Your task to perform on an android device: Open the phone app and click the voicemail tab. Image 0: 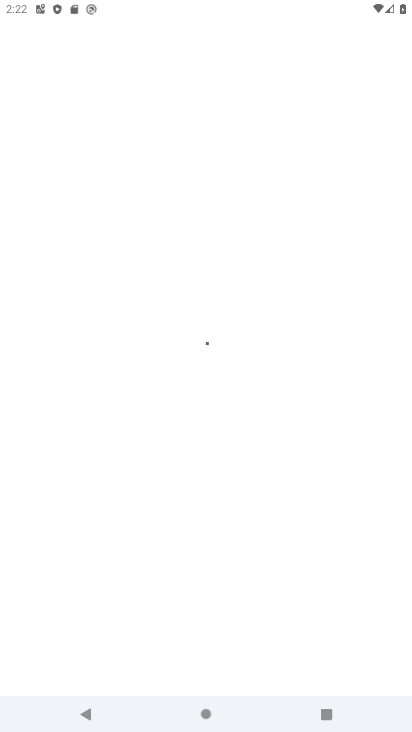
Step 0: press home button
Your task to perform on an android device: Open the phone app and click the voicemail tab. Image 1: 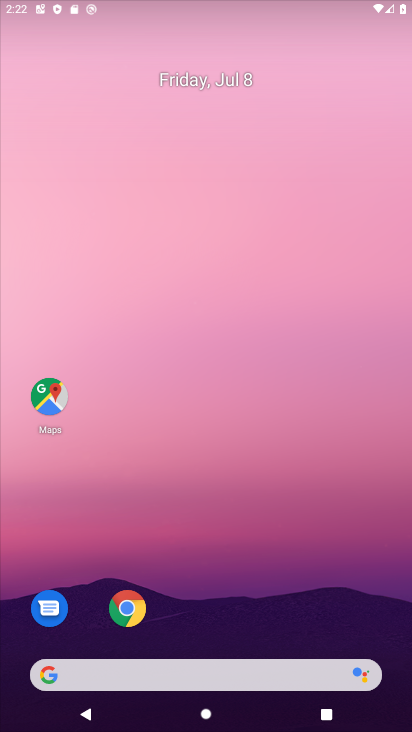
Step 1: drag from (232, 681) to (277, 125)
Your task to perform on an android device: Open the phone app and click the voicemail tab. Image 2: 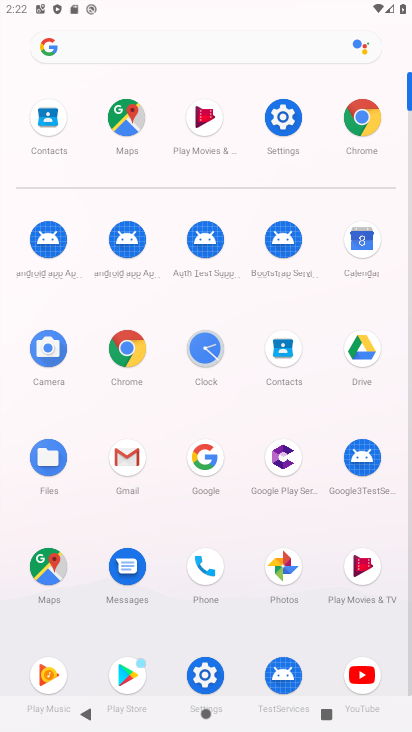
Step 2: click (214, 569)
Your task to perform on an android device: Open the phone app and click the voicemail tab. Image 3: 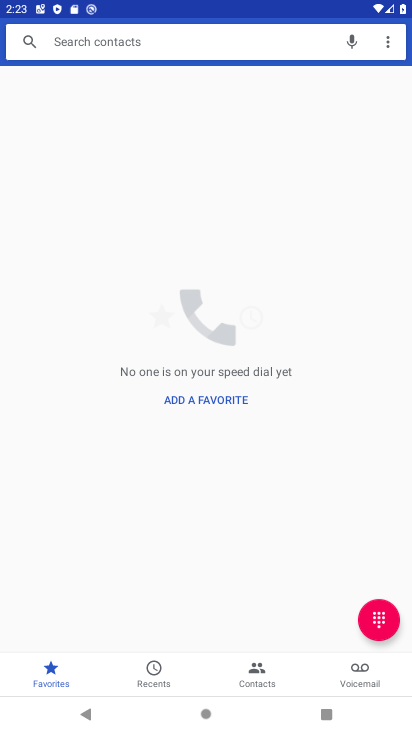
Step 3: click (344, 661)
Your task to perform on an android device: Open the phone app and click the voicemail tab. Image 4: 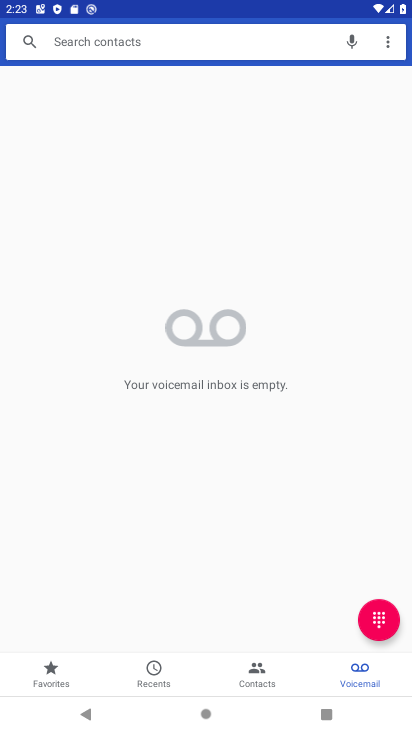
Step 4: task complete